Your task to perform on an android device: turn pop-ups off in chrome Image 0: 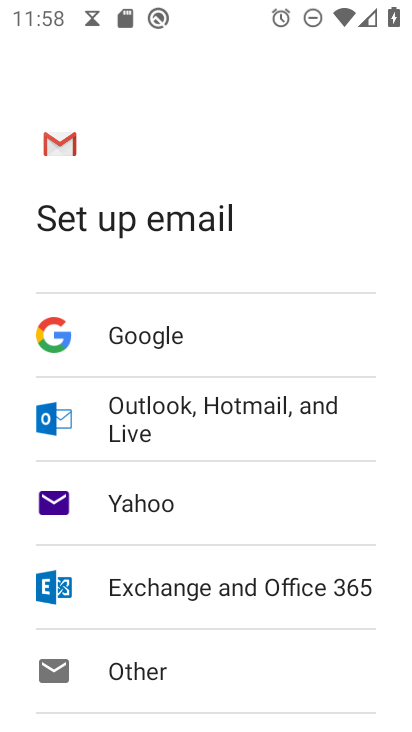
Step 0: press home button
Your task to perform on an android device: turn pop-ups off in chrome Image 1: 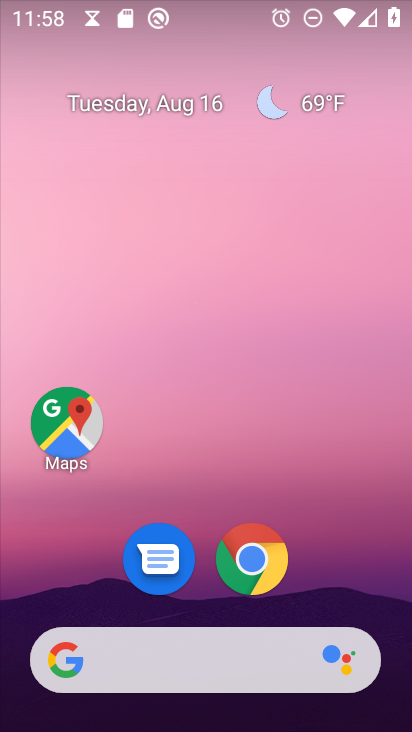
Step 1: click (254, 562)
Your task to perform on an android device: turn pop-ups off in chrome Image 2: 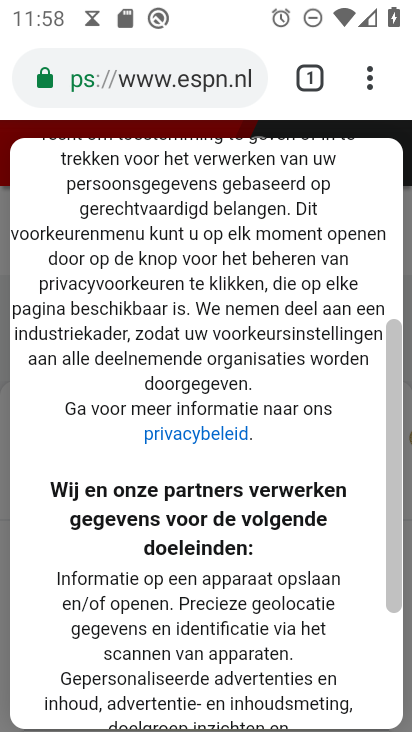
Step 2: click (389, 81)
Your task to perform on an android device: turn pop-ups off in chrome Image 3: 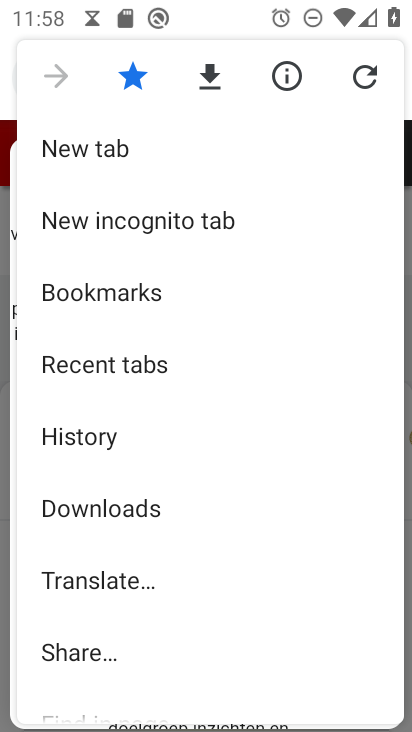
Step 3: drag from (167, 474) to (190, 395)
Your task to perform on an android device: turn pop-ups off in chrome Image 4: 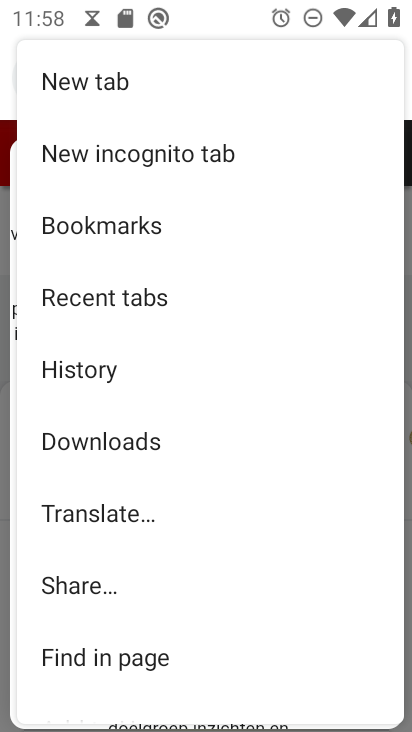
Step 4: drag from (140, 566) to (184, 479)
Your task to perform on an android device: turn pop-ups off in chrome Image 5: 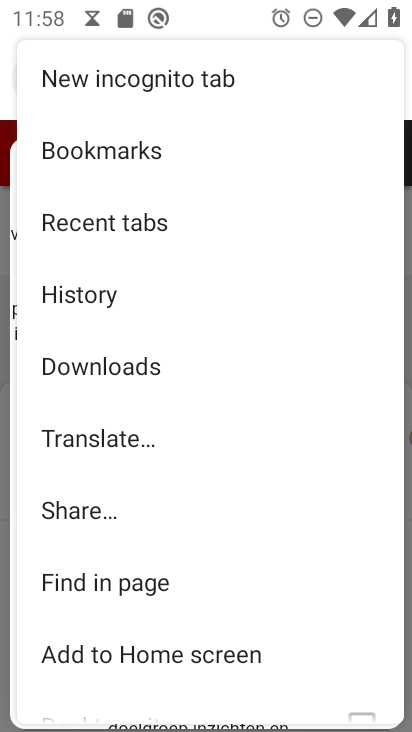
Step 5: drag from (126, 601) to (180, 490)
Your task to perform on an android device: turn pop-ups off in chrome Image 6: 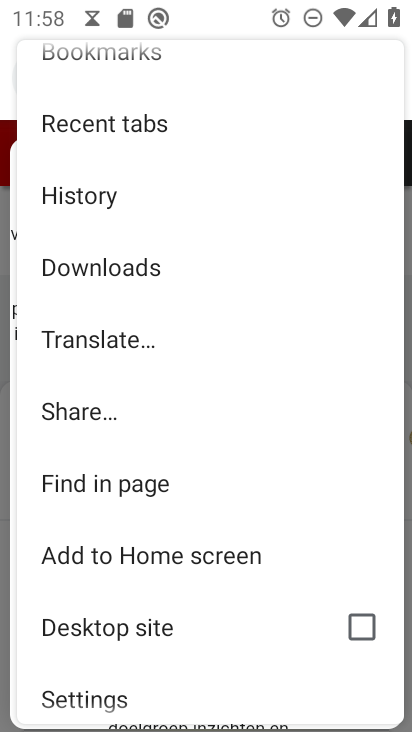
Step 6: drag from (129, 607) to (201, 472)
Your task to perform on an android device: turn pop-ups off in chrome Image 7: 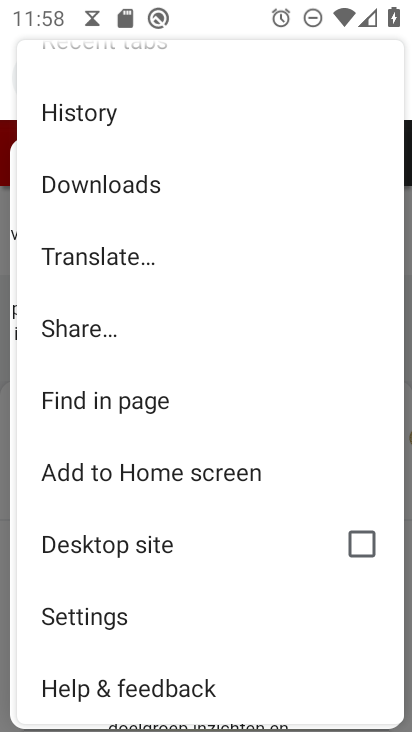
Step 7: click (116, 614)
Your task to perform on an android device: turn pop-ups off in chrome Image 8: 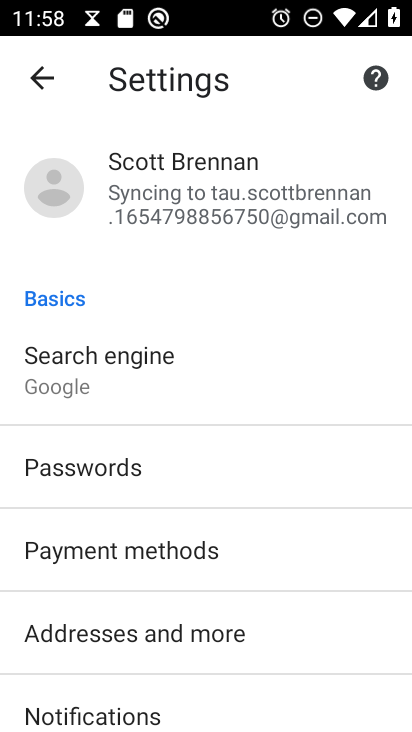
Step 8: drag from (145, 575) to (190, 452)
Your task to perform on an android device: turn pop-ups off in chrome Image 9: 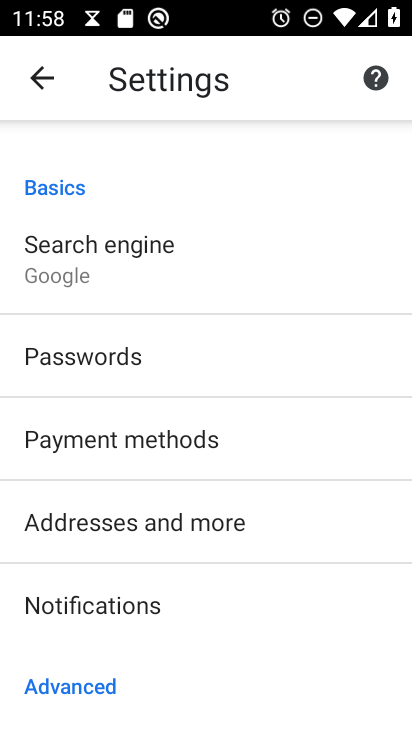
Step 9: drag from (162, 575) to (223, 461)
Your task to perform on an android device: turn pop-ups off in chrome Image 10: 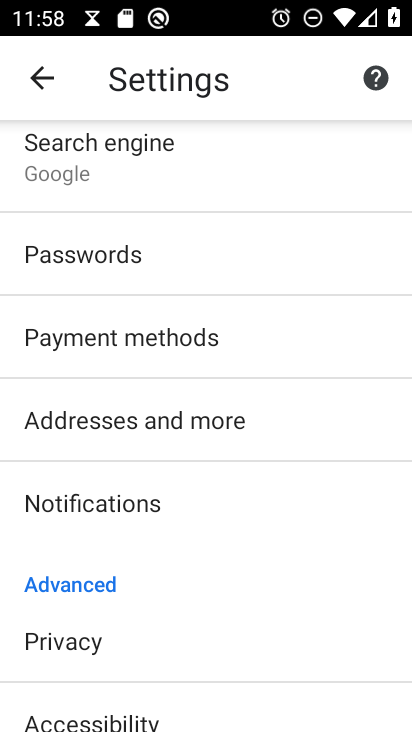
Step 10: drag from (147, 639) to (215, 495)
Your task to perform on an android device: turn pop-ups off in chrome Image 11: 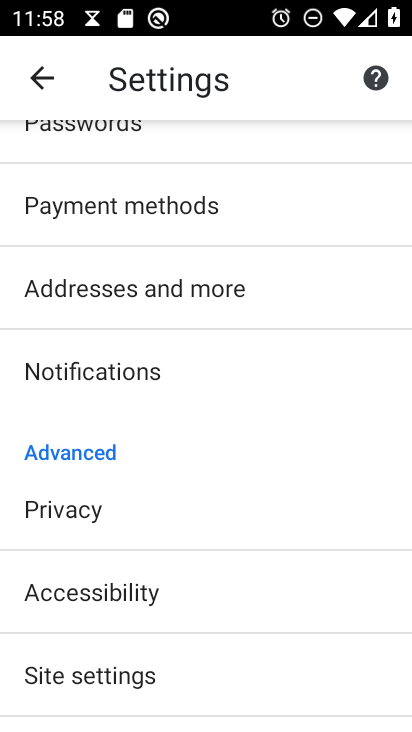
Step 11: drag from (145, 659) to (229, 553)
Your task to perform on an android device: turn pop-ups off in chrome Image 12: 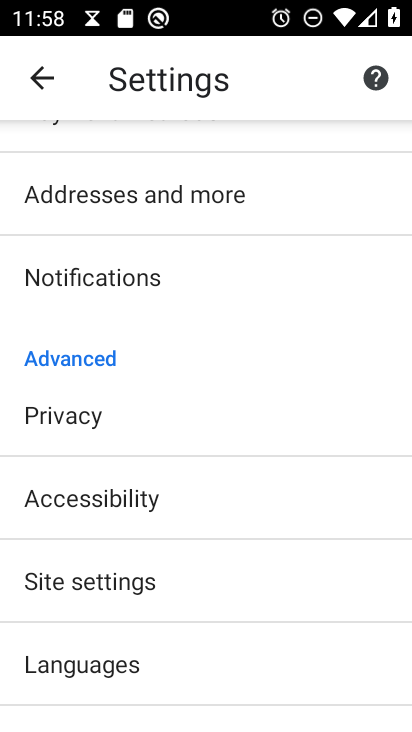
Step 12: click (131, 586)
Your task to perform on an android device: turn pop-ups off in chrome Image 13: 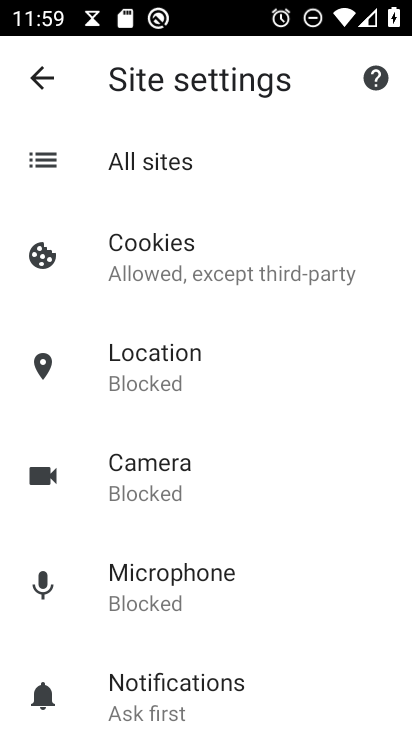
Step 13: drag from (207, 611) to (254, 505)
Your task to perform on an android device: turn pop-ups off in chrome Image 14: 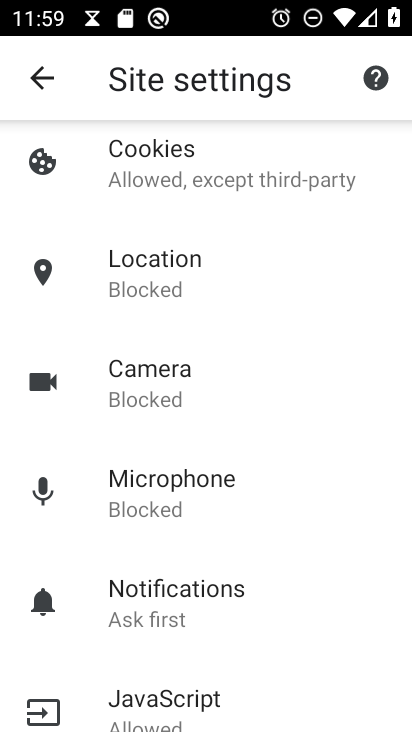
Step 14: drag from (194, 641) to (271, 513)
Your task to perform on an android device: turn pop-ups off in chrome Image 15: 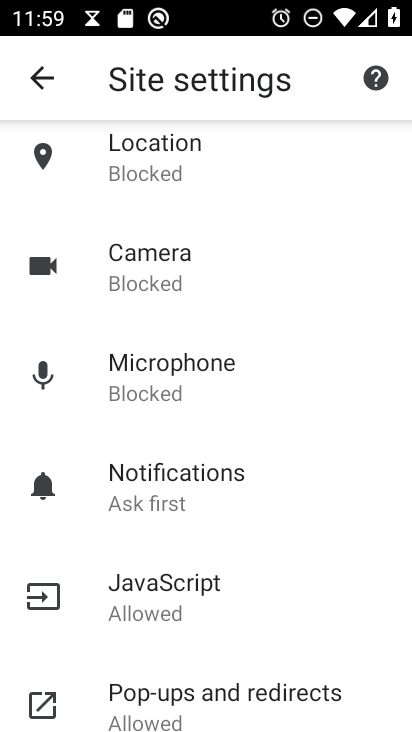
Step 15: drag from (229, 624) to (295, 498)
Your task to perform on an android device: turn pop-ups off in chrome Image 16: 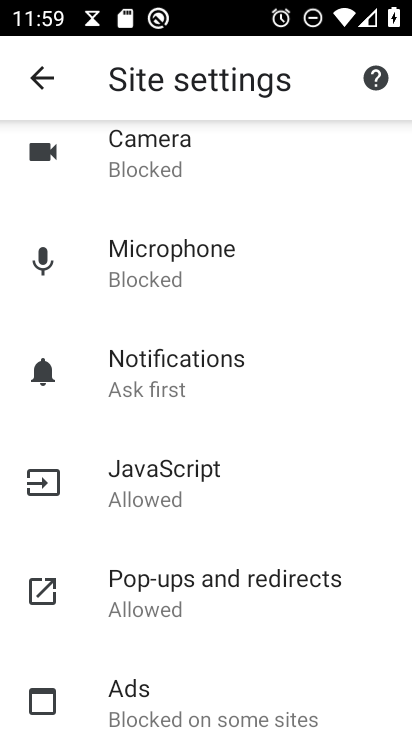
Step 16: click (228, 577)
Your task to perform on an android device: turn pop-ups off in chrome Image 17: 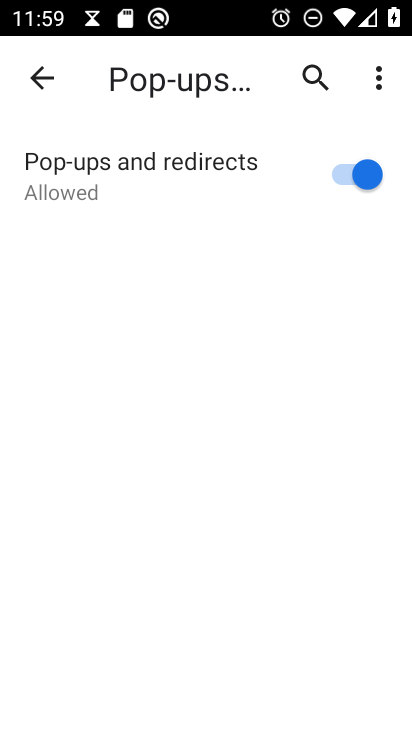
Step 17: click (339, 185)
Your task to perform on an android device: turn pop-ups off in chrome Image 18: 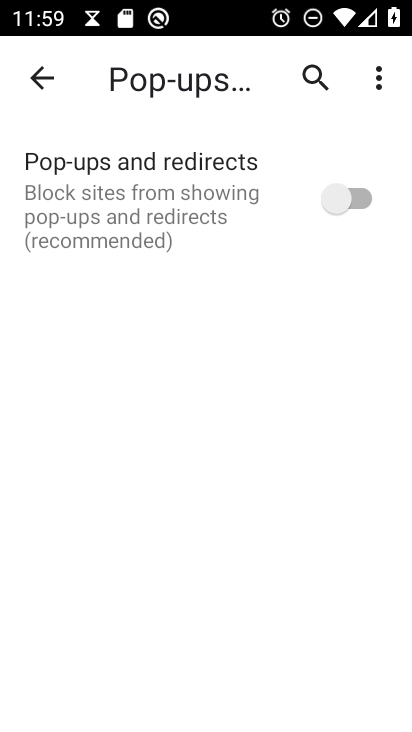
Step 18: task complete